Your task to perform on an android device: open app "Chime – Mobile Banking" Image 0: 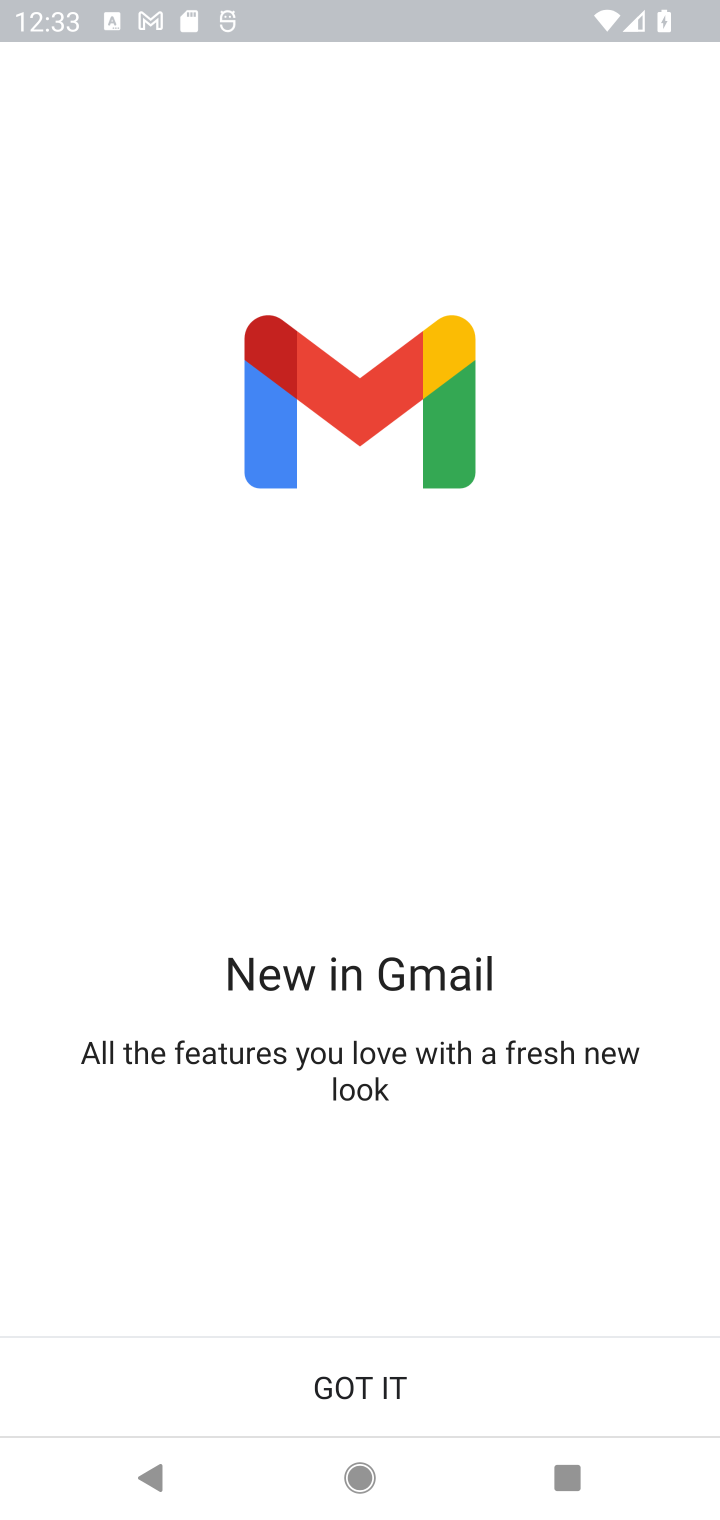
Step 0: press home button
Your task to perform on an android device: open app "Chime – Mobile Banking" Image 1: 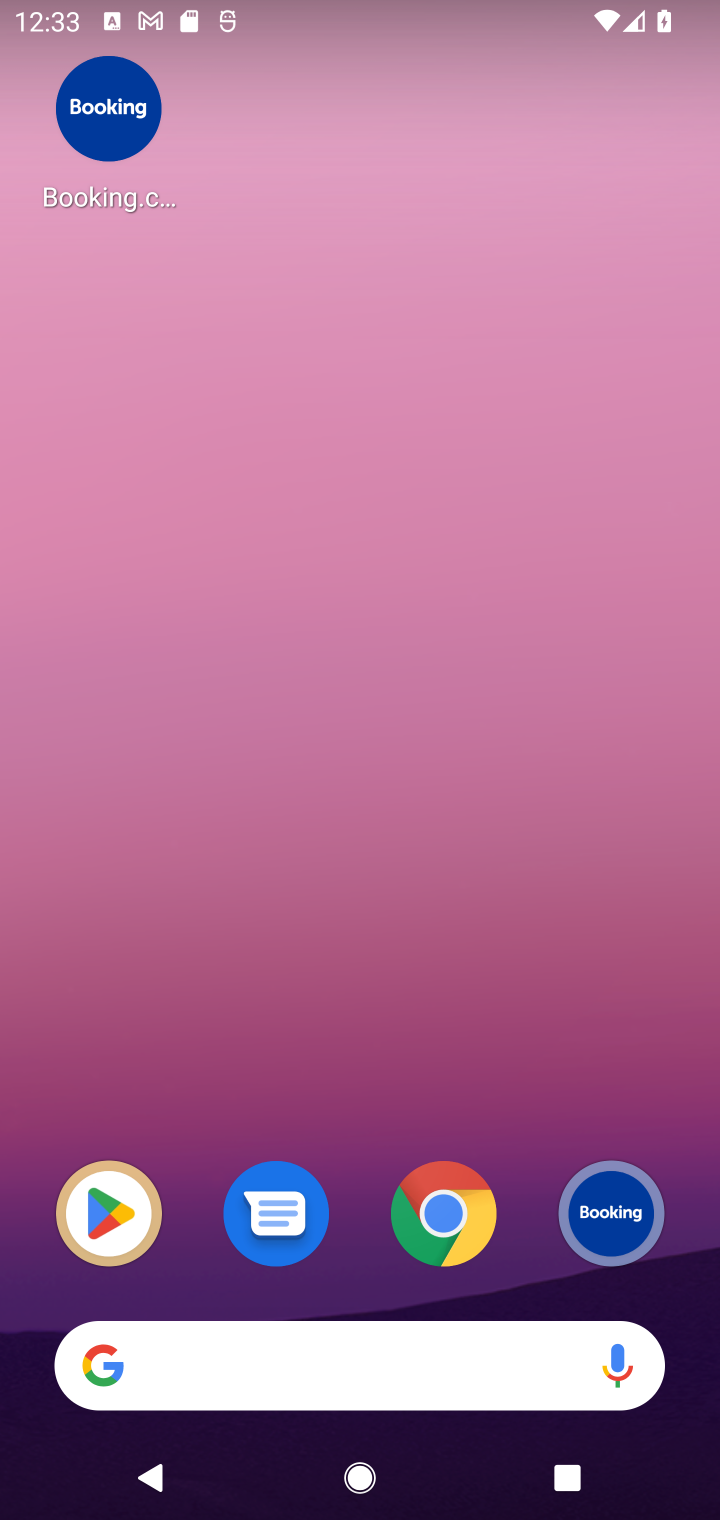
Step 1: click (98, 1222)
Your task to perform on an android device: open app "Chime – Mobile Banking" Image 2: 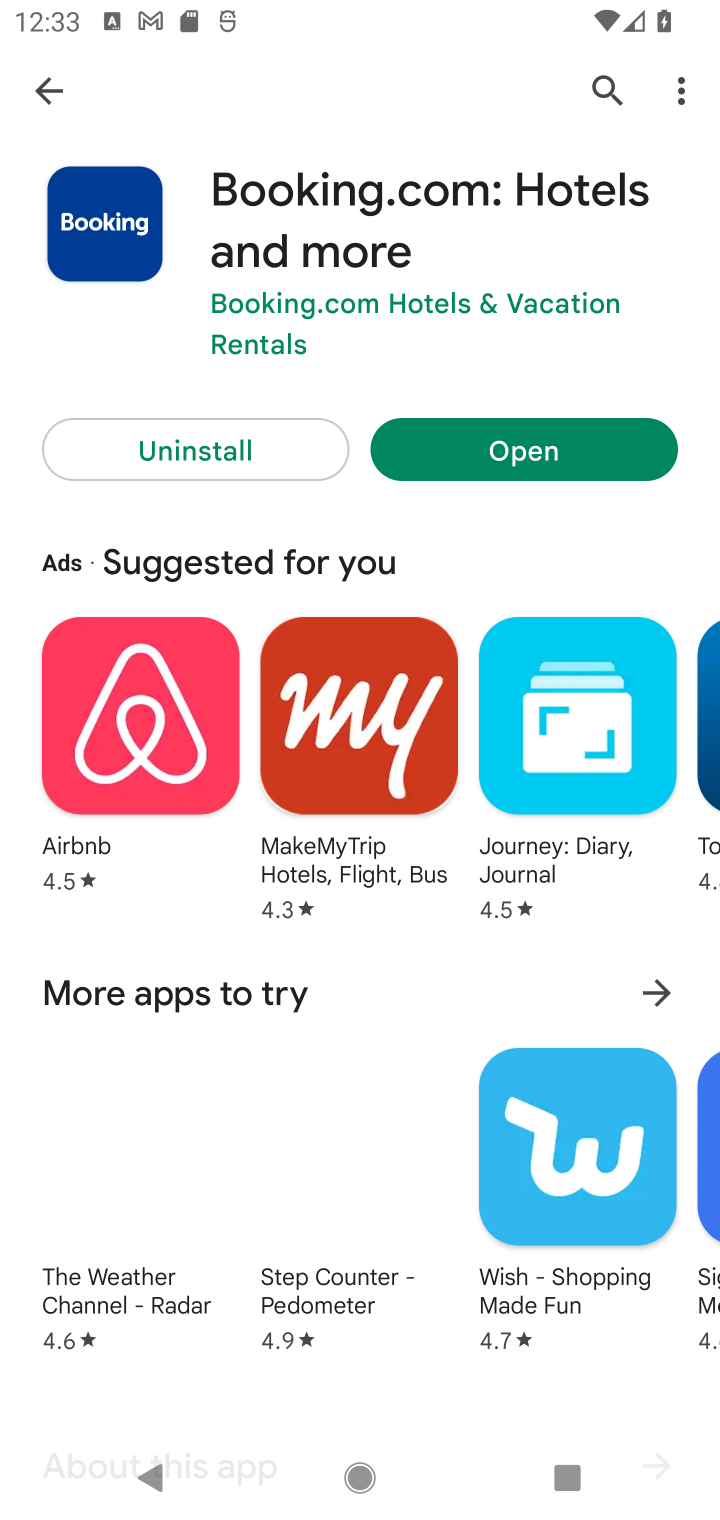
Step 2: click (47, 93)
Your task to perform on an android device: open app "Chime – Mobile Banking" Image 3: 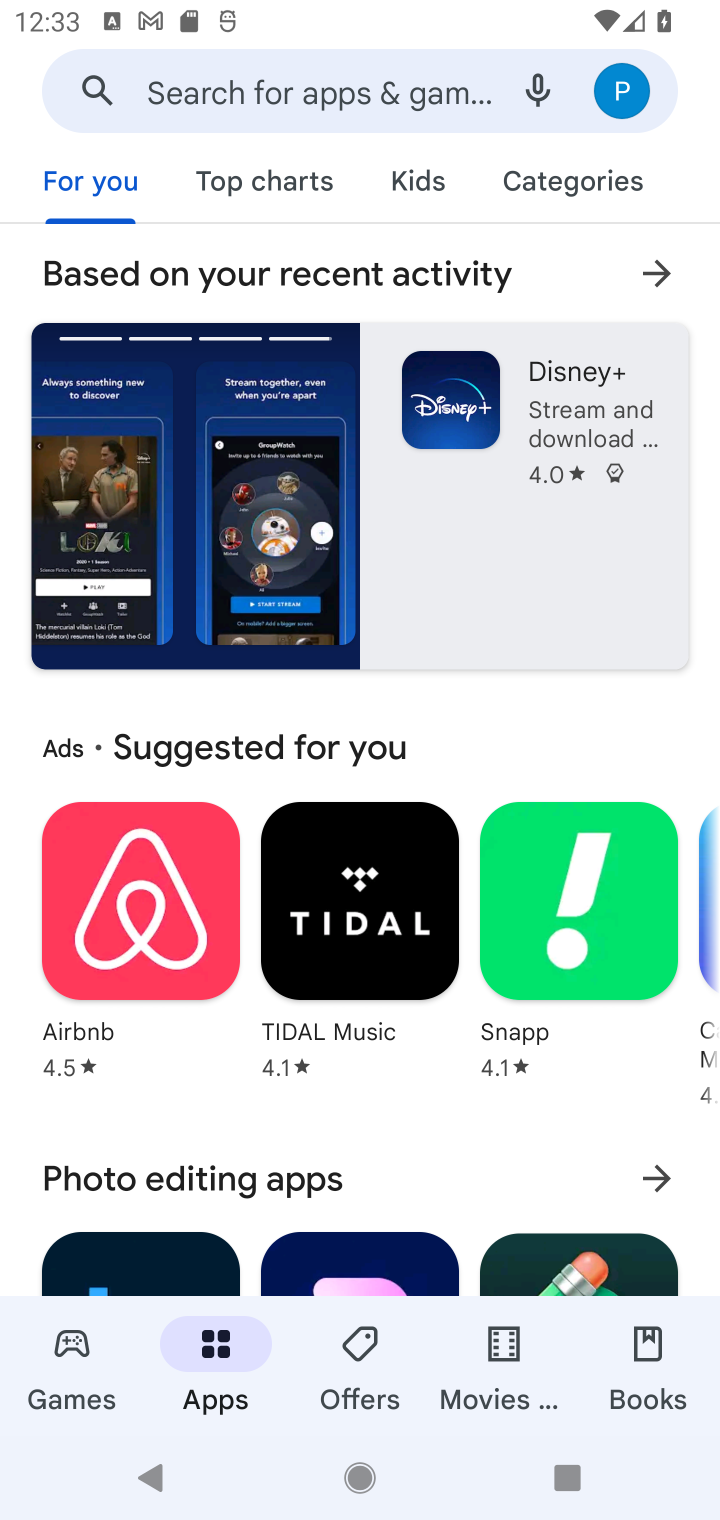
Step 3: click (365, 93)
Your task to perform on an android device: open app "Chime – Mobile Banking" Image 4: 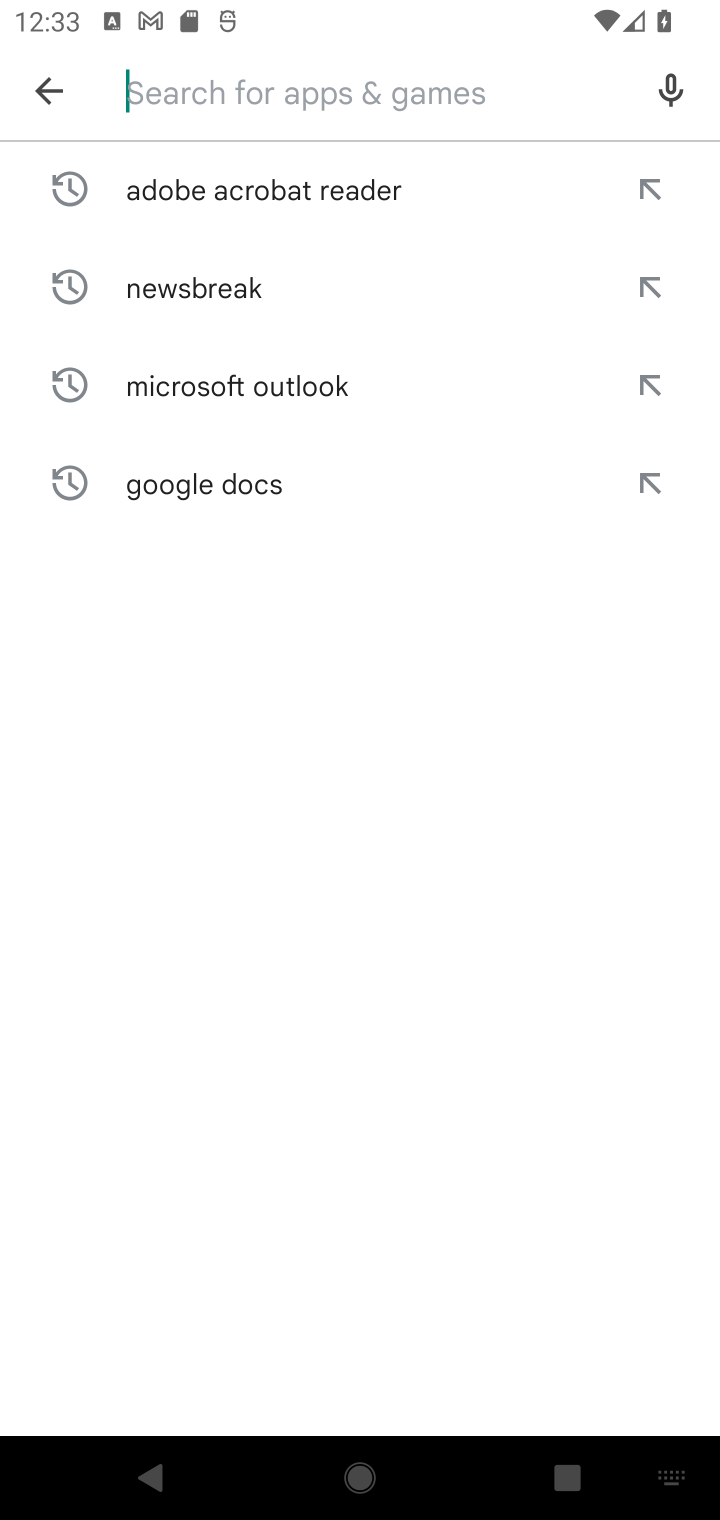
Step 4: type "Chime"
Your task to perform on an android device: open app "Chime – Mobile Banking" Image 5: 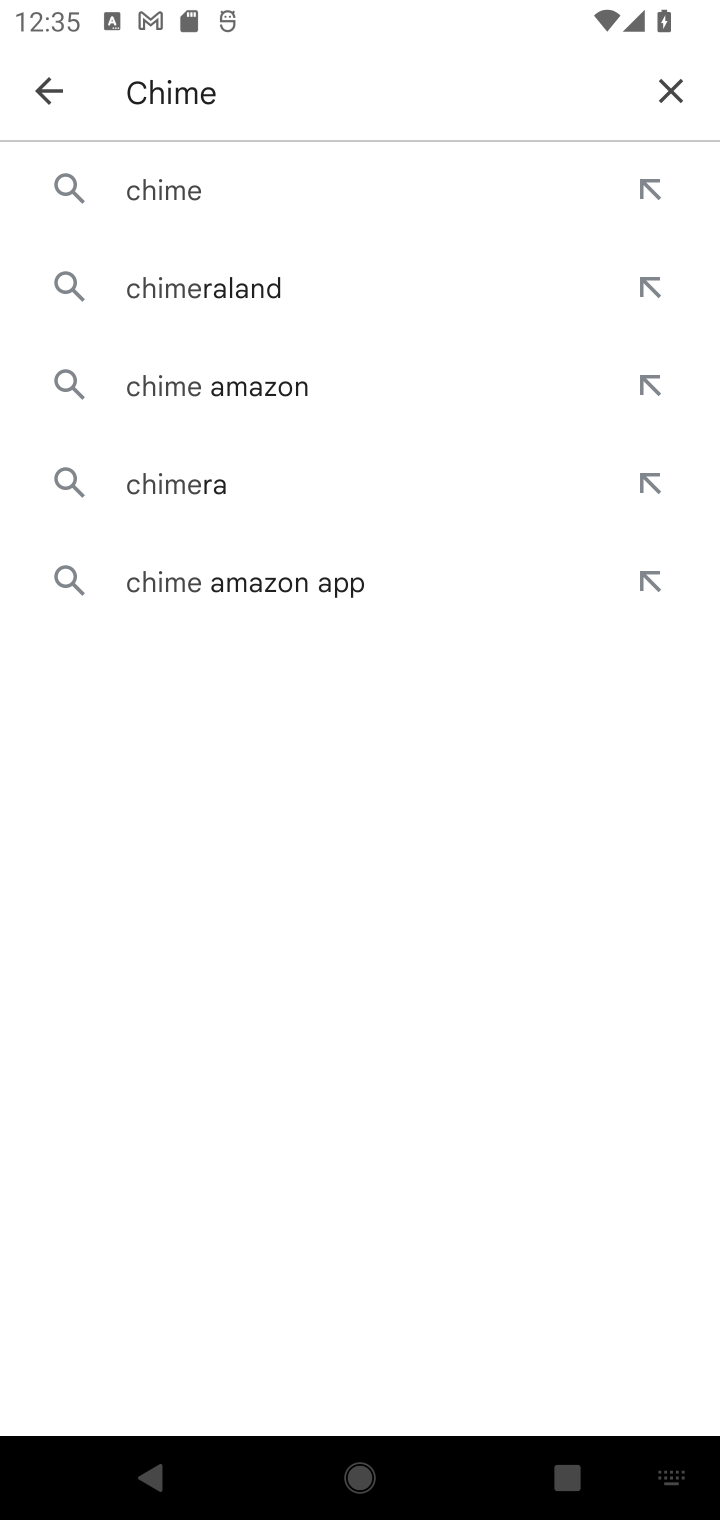
Step 5: click (148, 202)
Your task to perform on an android device: open app "Chime – Mobile Banking" Image 6: 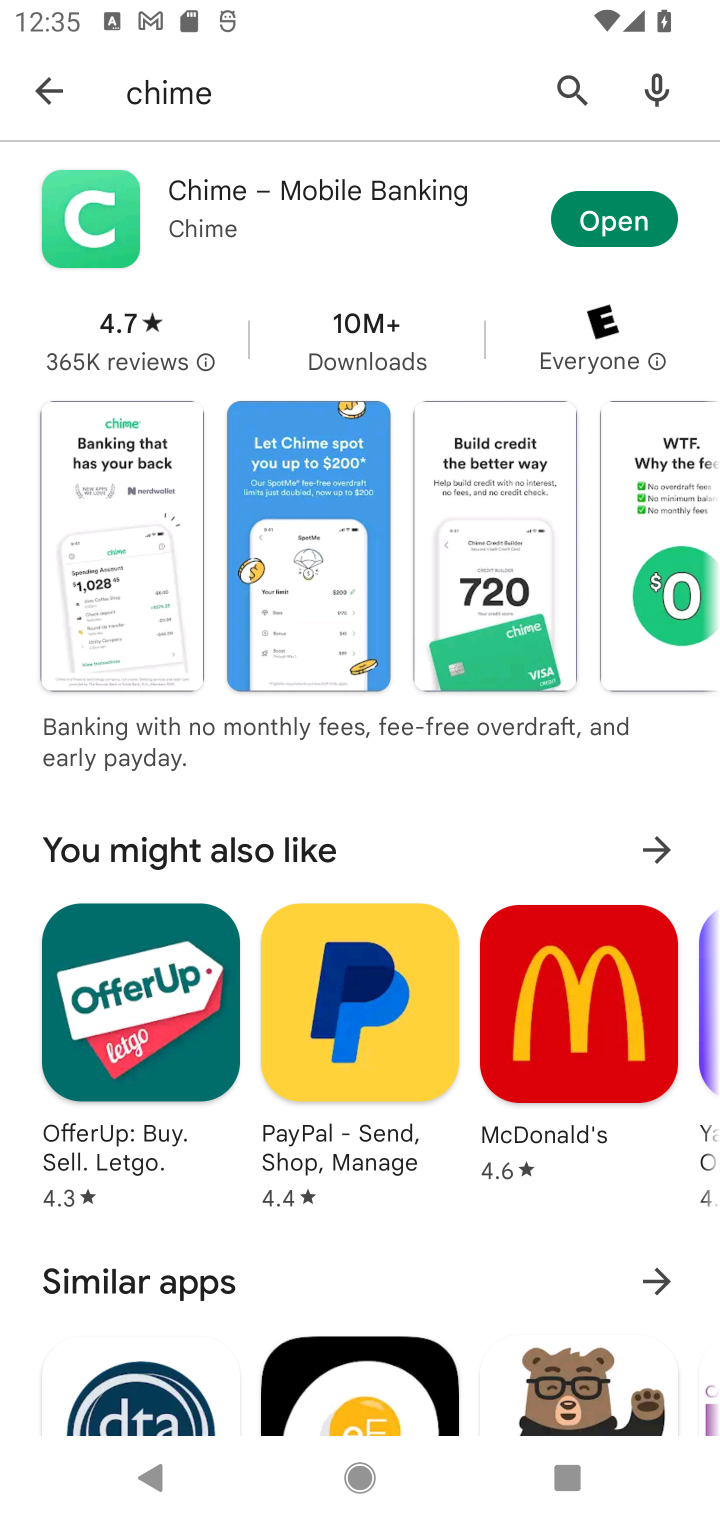
Step 6: click (658, 214)
Your task to perform on an android device: open app "Chime – Mobile Banking" Image 7: 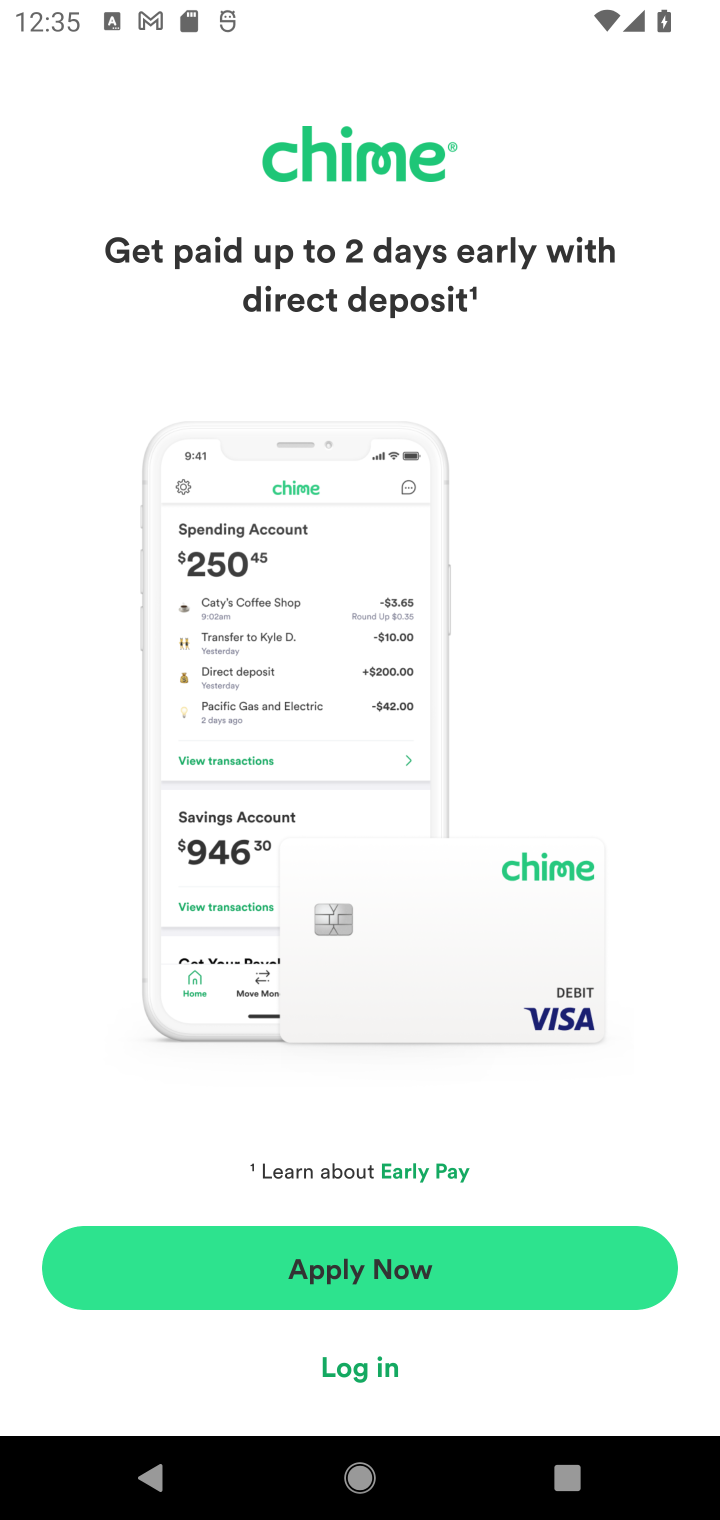
Step 7: task complete